Your task to perform on an android device: change the clock display to show seconds Image 0: 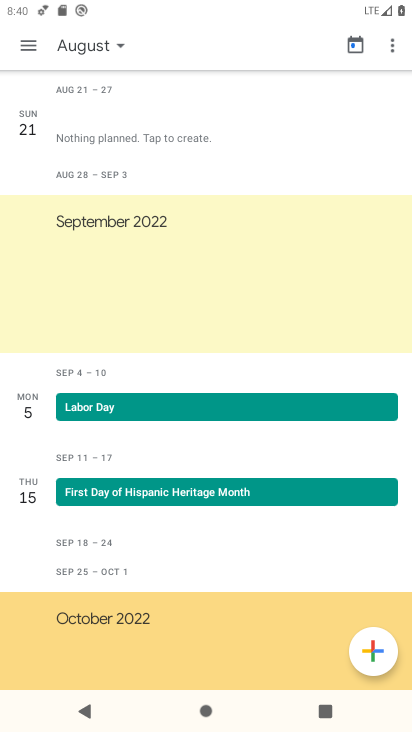
Step 0: press home button
Your task to perform on an android device: change the clock display to show seconds Image 1: 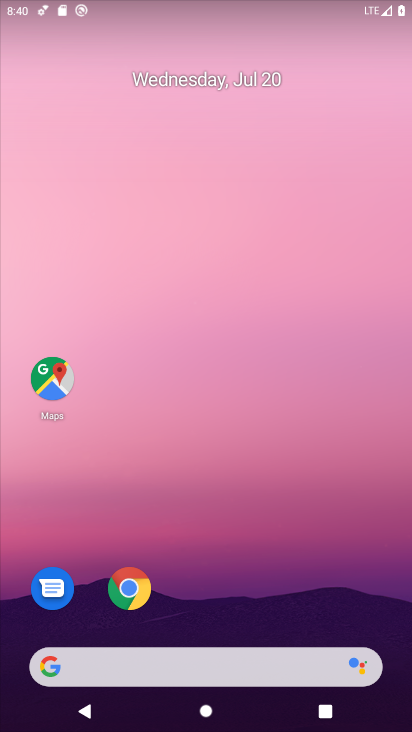
Step 1: drag from (216, 631) to (302, 55)
Your task to perform on an android device: change the clock display to show seconds Image 2: 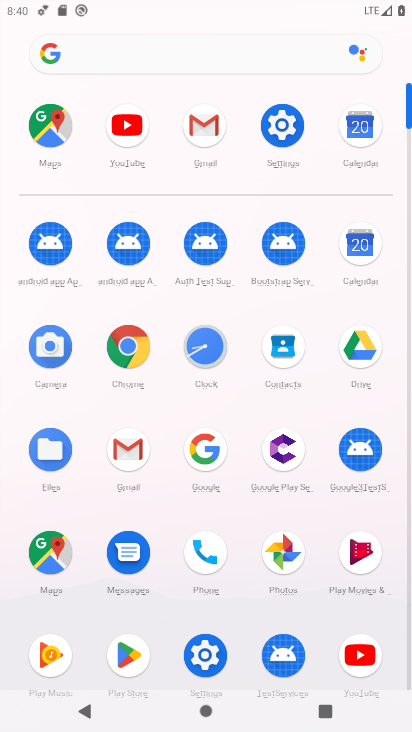
Step 2: click (201, 341)
Your task to perform on an android device: change the clock display to show seconds Image 3: 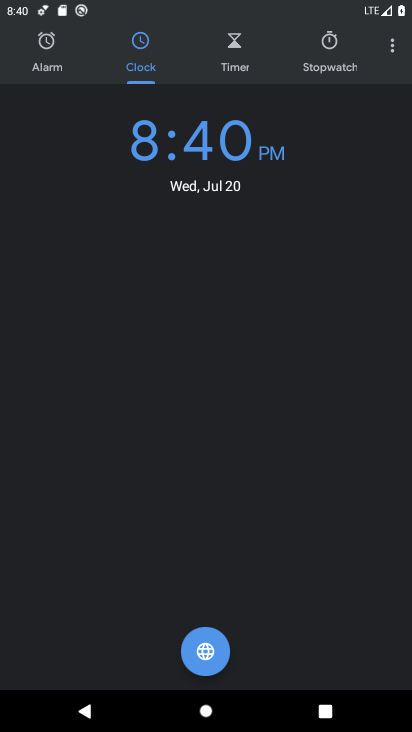
Step 3: click (388, 43)
Your task to perform on an android device: change the clock display to show seconds Image 4: 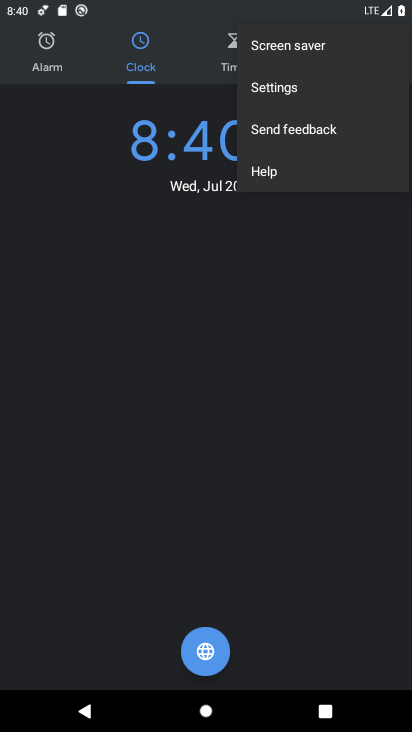
Step 4: click (304, 88)
Your task to perform on an android device: change the clock display to show seconds Image 5: 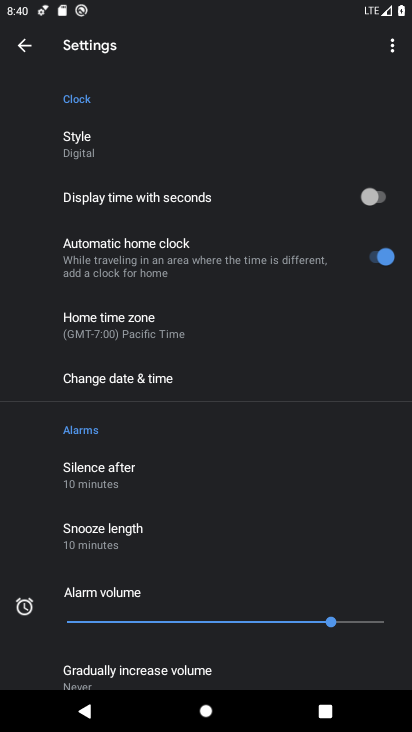
Step 5: click (381, 193)
Your task to perform on an android device: change the clock display to show seconds Image 6: 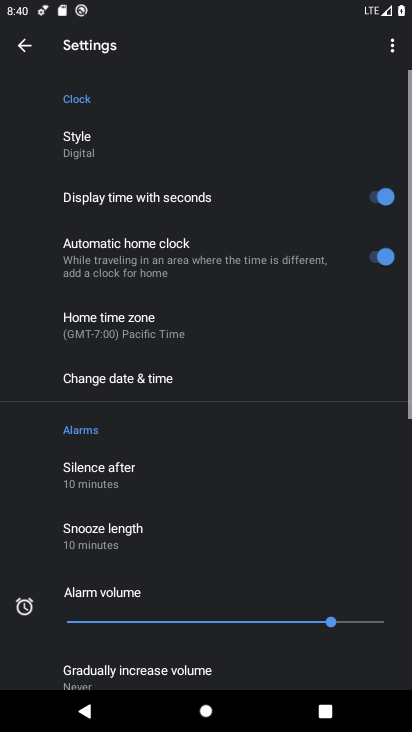
Step 6: task complete